Your task to perform on an android device: Open ESPN.com Image 0: 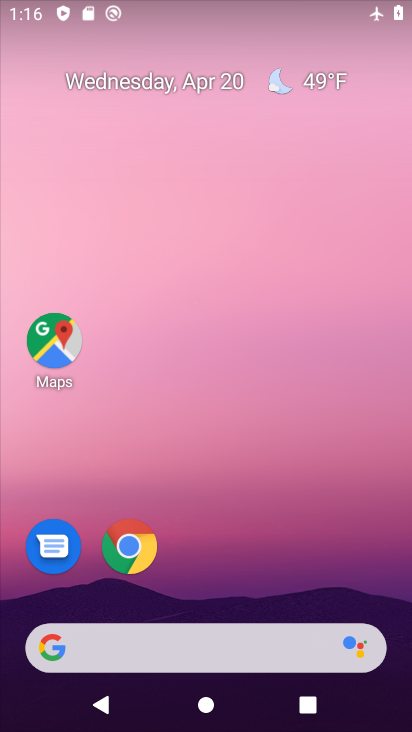
Step 0: drag from (270, 482) to (260, 209)
Your task to perform on an android device: Open ESPN.com Image 1: 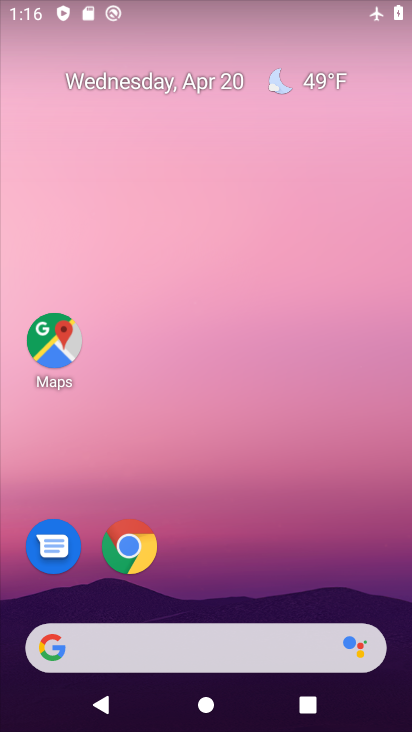
Step 1: drag from (248, 547) to (276, 84)
Your task to perform on an android device: Open ESPN.com Image 2: 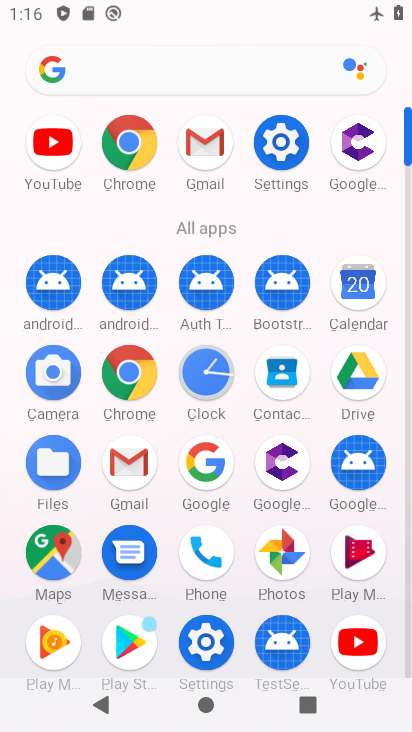
Step 2: click (128, 358)
Your task to perform on an android device: Open ESPN.com Image 3: 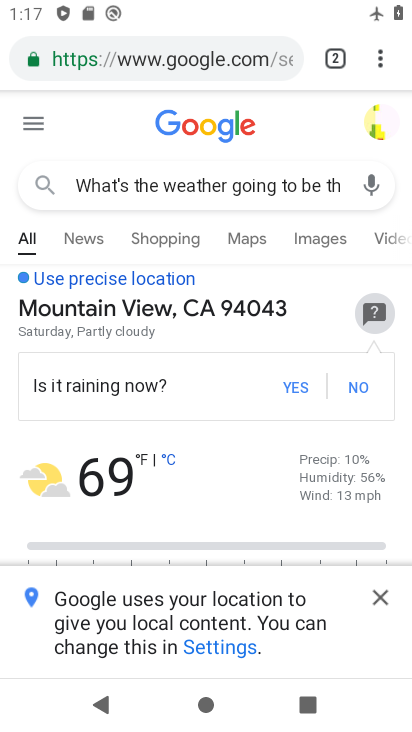
Step 3: click (373, 592)
Your task to perform on an android device: Open ESPN.com Image 4: 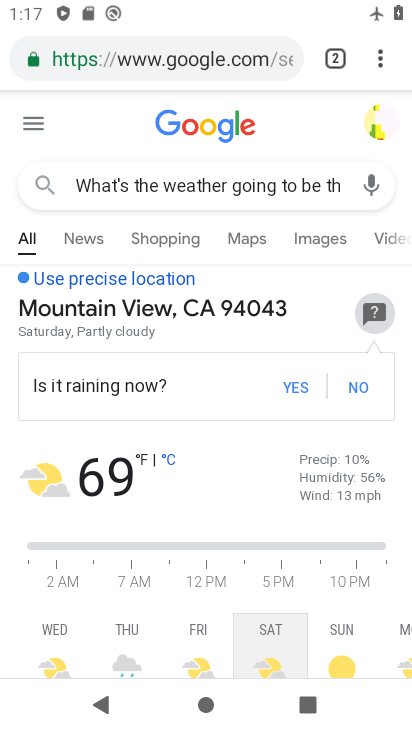
Step 4: task complete